Your task to perform on an android device: Go to display settings Image 0: 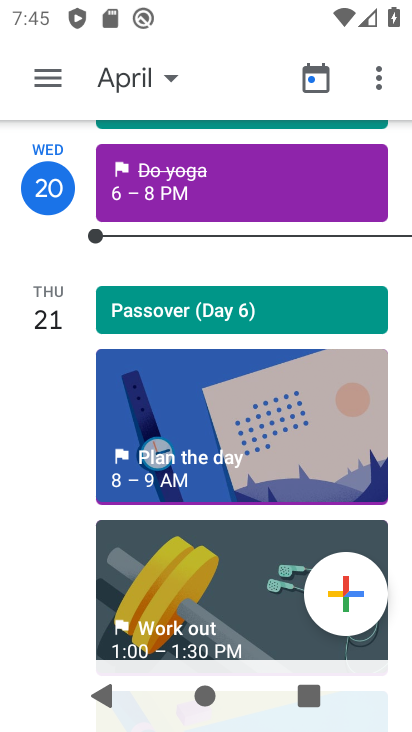
Step 0: press home button
Your task to perform on an android device: Go to display settings Image 1: 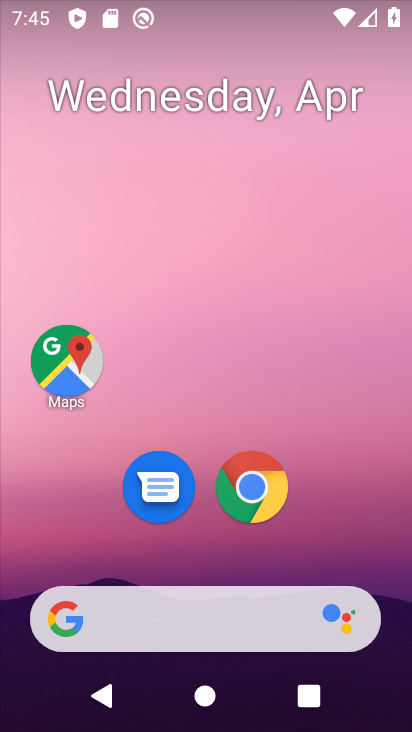
Step 1: drag from (328, 536) to (262, 139)
Your task to perform on an android device: Go to display settings Image 2: 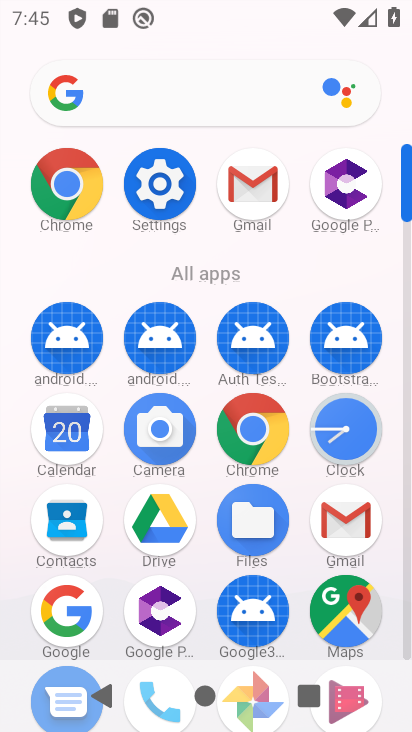
Step 2: click (169, 177)
Your task to perform on an android device: Go to display settings Image 3: 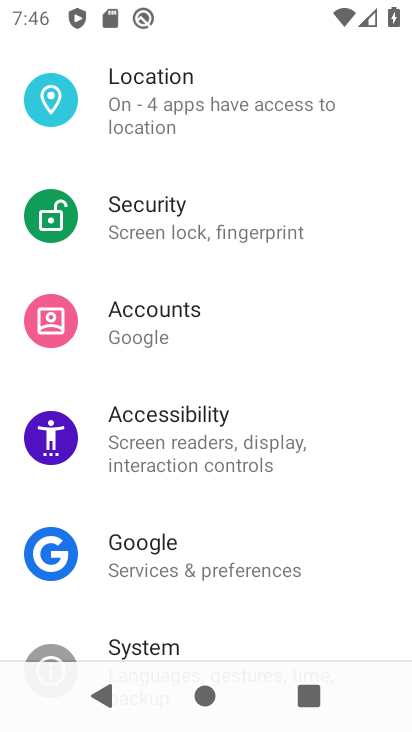
Step 3: drag from (192, 461) to (241, 707)
Your task to perform on an android device: Go to display settings Image 4: 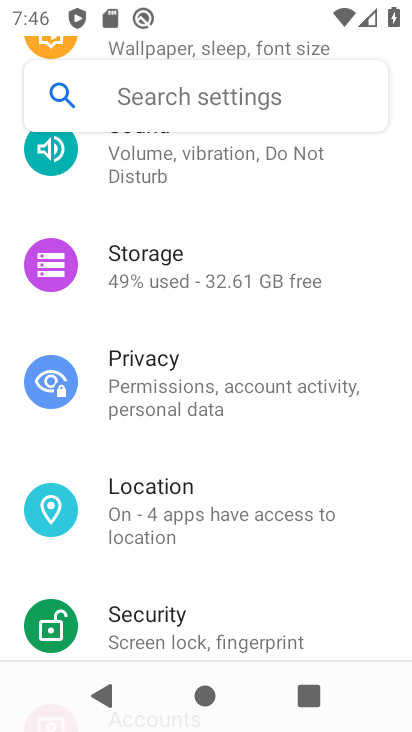
Step 4: drag from (254, 231) to (284, 659)
Your task to perform on an android device: Go to display settings Image 5: 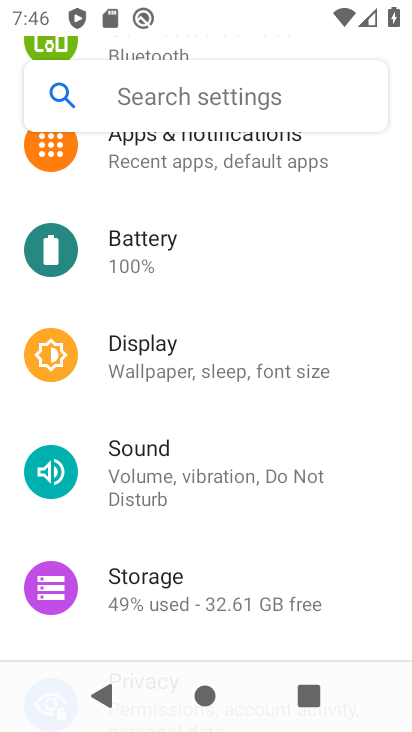
Step 5: drag from (194, 214) to (196, 340)
Your task to perform on an android device: Go to display settings Image 6: 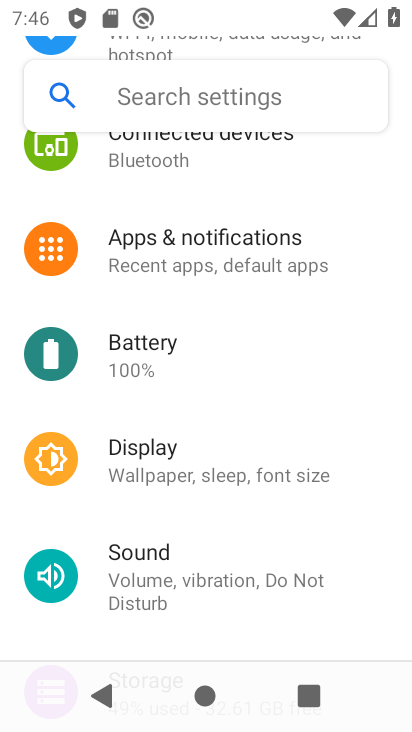
Step 6: click (185, 455)
Your task to perform on an android device: Go to display settings Image 7: 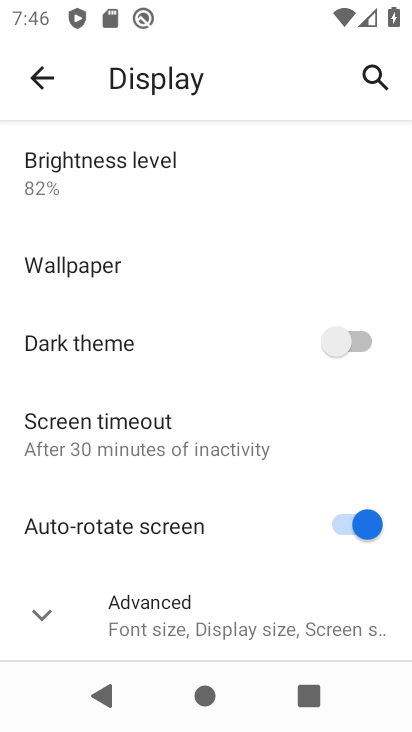
Step 7: task complete